Your task to perform on an android device: manage bookmarks in the chrome app Image 0: 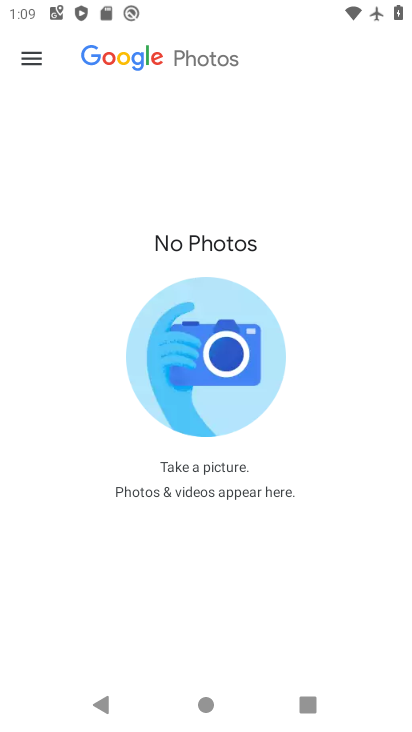
Step 0: press home button
Your task to perform on an android device: manage bookmarks in the chrome app Image 1: 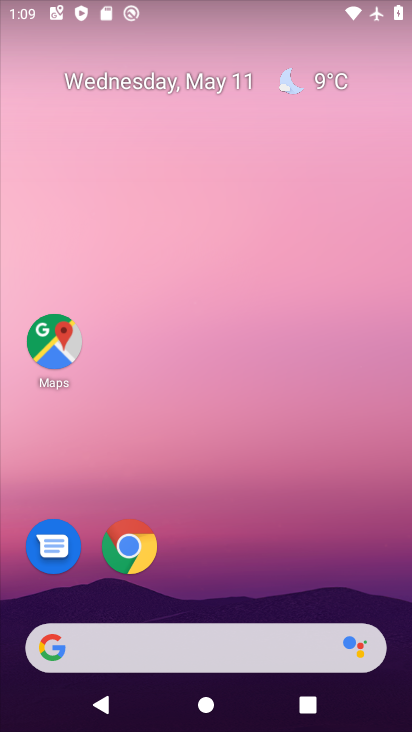
Step 1: drag from (279, 645) to (250, 38)
Your task to perform on an android device: manage bookmarks in the chrome app Image 2: 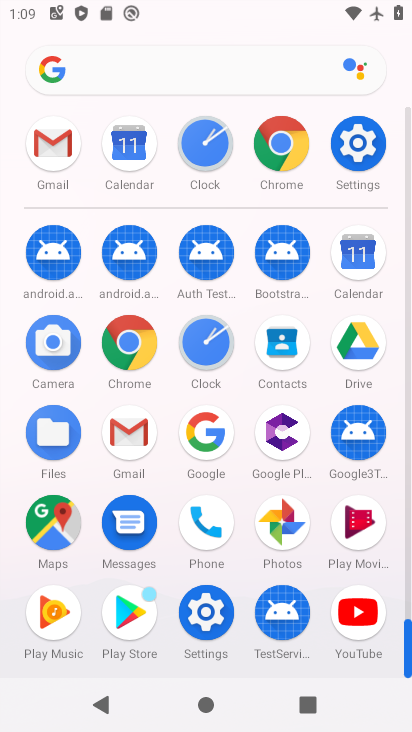
Step 2: click (144, 348)
Your task to perform on an android device: manage bookmarks in the chrome app Image 3: 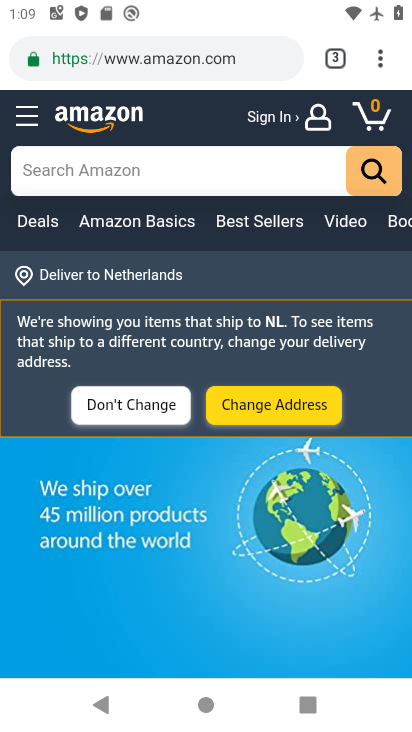
Step 3: click (376, 51)
Your task to perform on an android device: manage bookmarks in the chrome app Image 4: 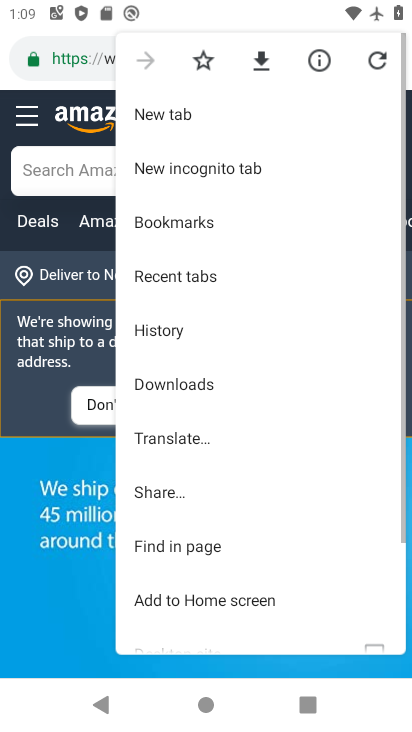
Step 4: click (207, 225)
Your task to perform on an android device: manage bookmarks in the chrome app Image 5: 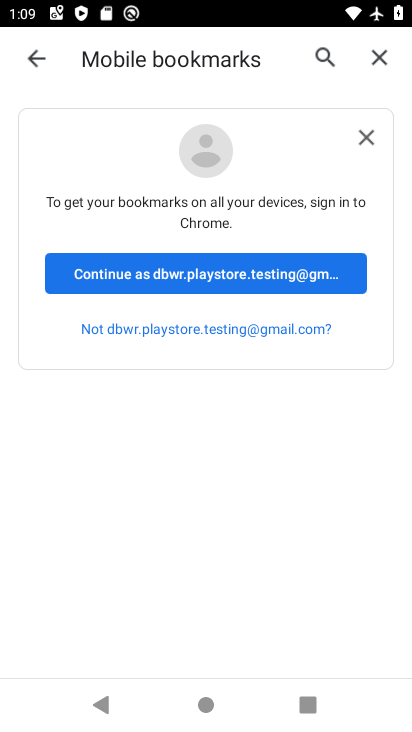
Step 5: task complete